Your task to perform on an android device: open the mobile data screen to see how much data has been used Image 0: 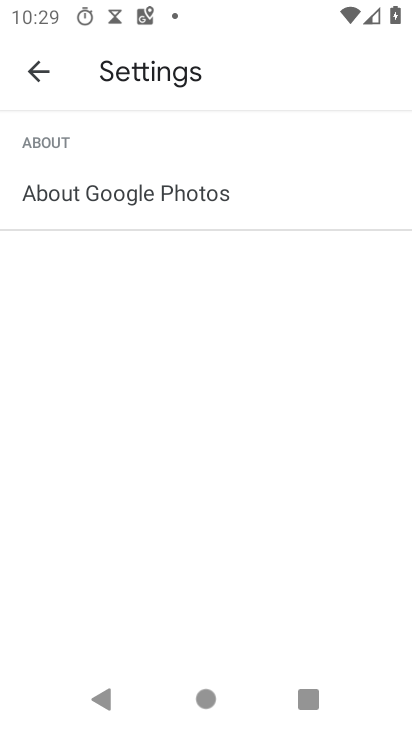
Step 0: press home button
Your task to perform on an android device: open the mobile data screen to see how much data has been used Image 1: 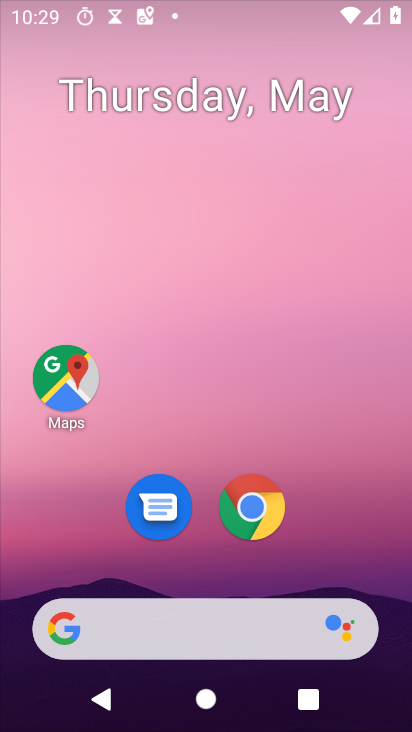
Step 1: drag from (144, 728) to (164, 22)
Your task to perform on an android device: open the mobile data screen to see how much data has been used Image 2: 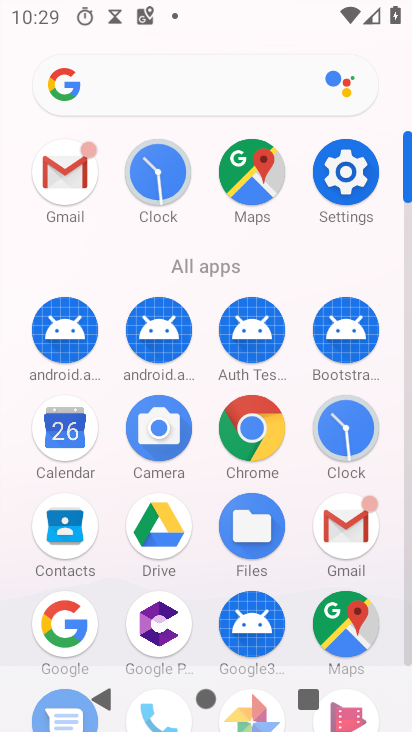
Step 2: click (327, 184)
Your task to perform on an android device: open the mobile data screen to see how much data has been used Image 3: 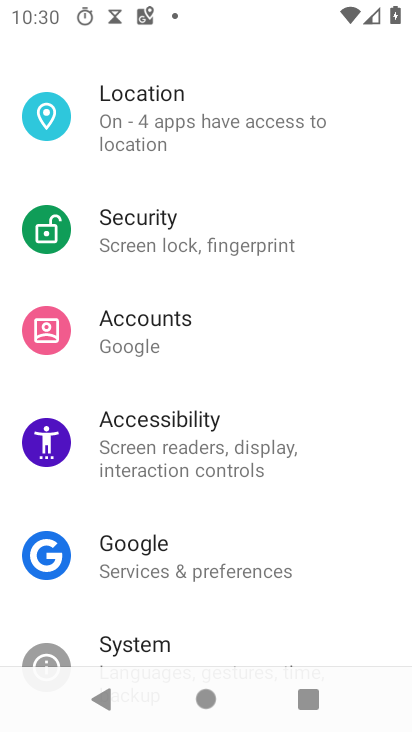
Step 3: drag from (231, 88) to (234, 671)
Your task to perform on an android device: open the mobile data screen to see how much data has been used Image 4: 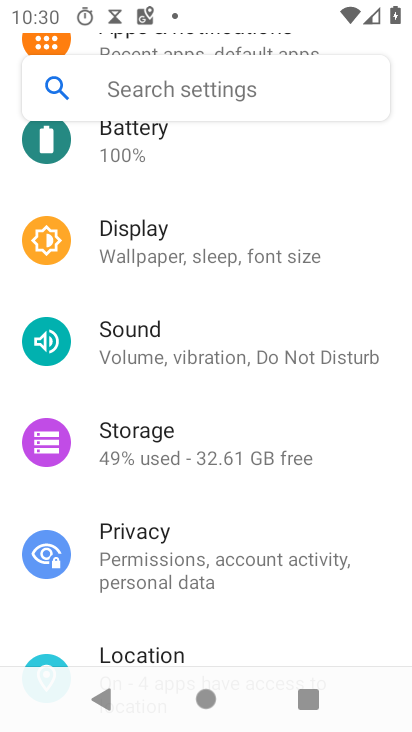
Step 4: drag from (231, 224) to (233, 600)
Your task to perform on an android device: open the mobile data screen to see how much data has been used Image 5: 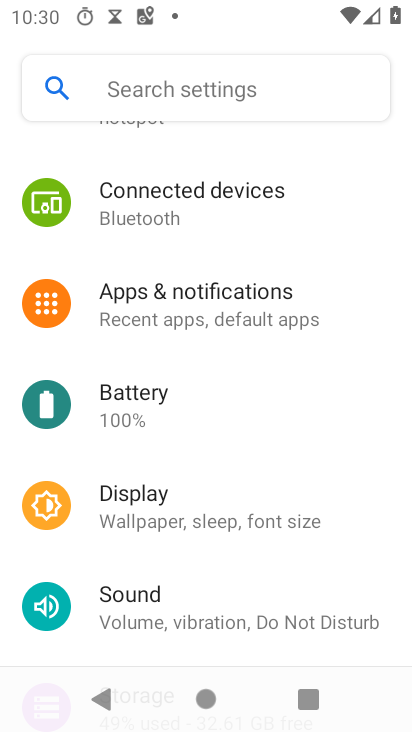
Step 5: drag from (192, 167) to (185, 601)
Your task to perform on an android device: open the mobile data screen to see how much data has been used Image 6: 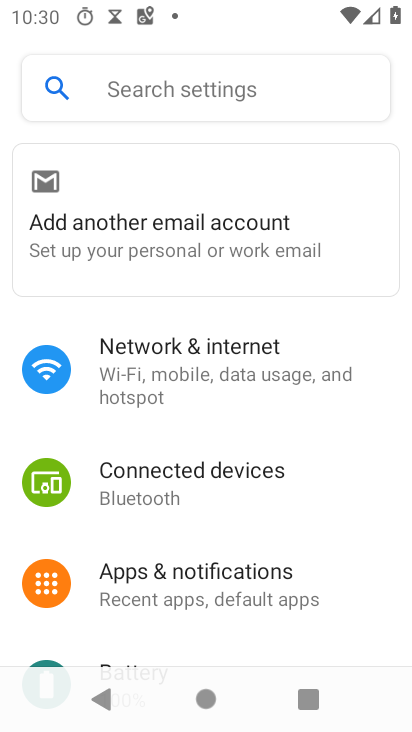
Step 6: click (229, 388)
Your task to perform on an android device: open the mobile data screen to see how much data has been used Image 7: 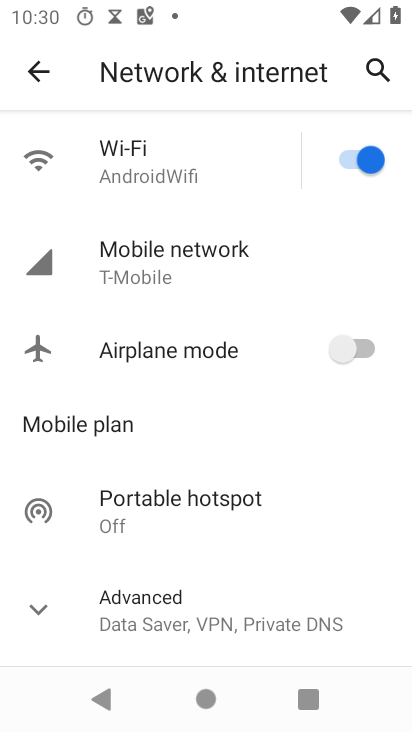
Step 7: click (201, 278)
Your task to perform on an android device: open the mobile data screen to see how much data has been used Image 8: 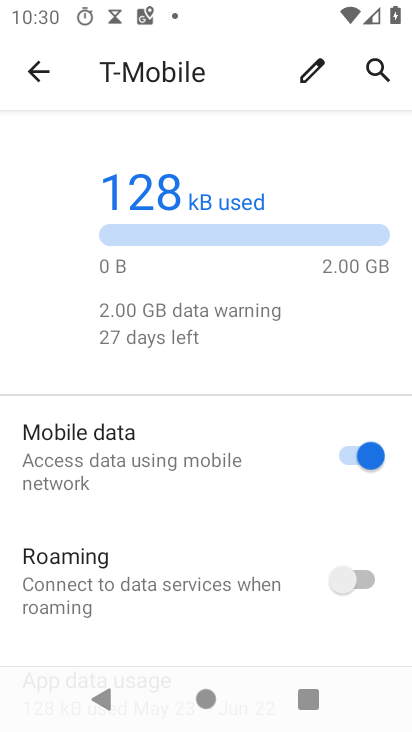
Step 8: task complete